Your task to perform on an android device: turn notification dots on Image 0: 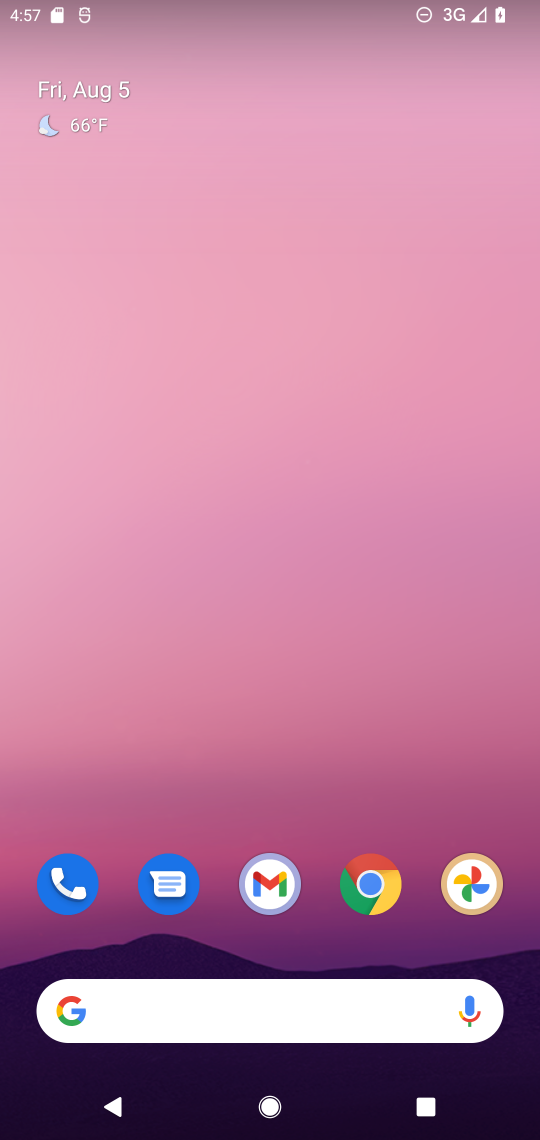
Step 0: drag from (416, 956) to (298, 77)
Your task to perform on an android device: turn notification dots on Image 1: 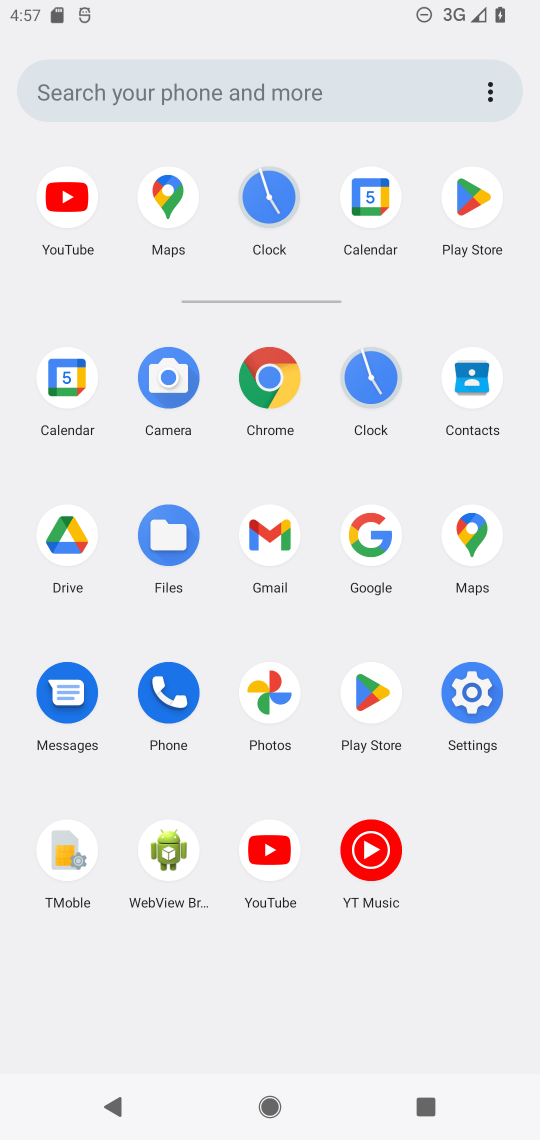
Step 1: click (473, 711)
Your task to perform on an android device: turn notification dots on Image 2: 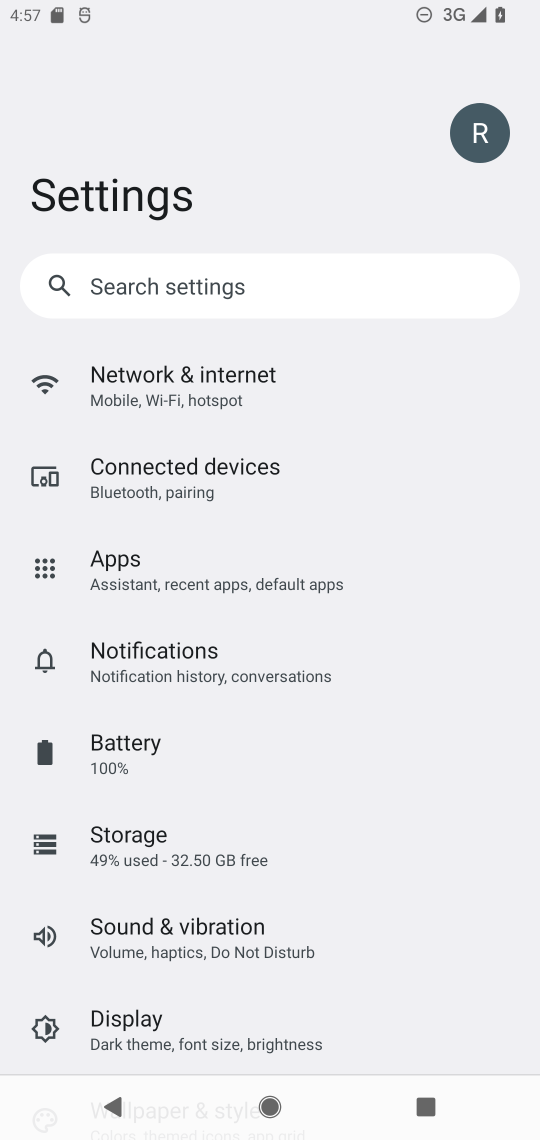
Step 2: drag from (173, 1001) to (174, 246)
Your task to perform on an android device: turn notification dots on Image 3: 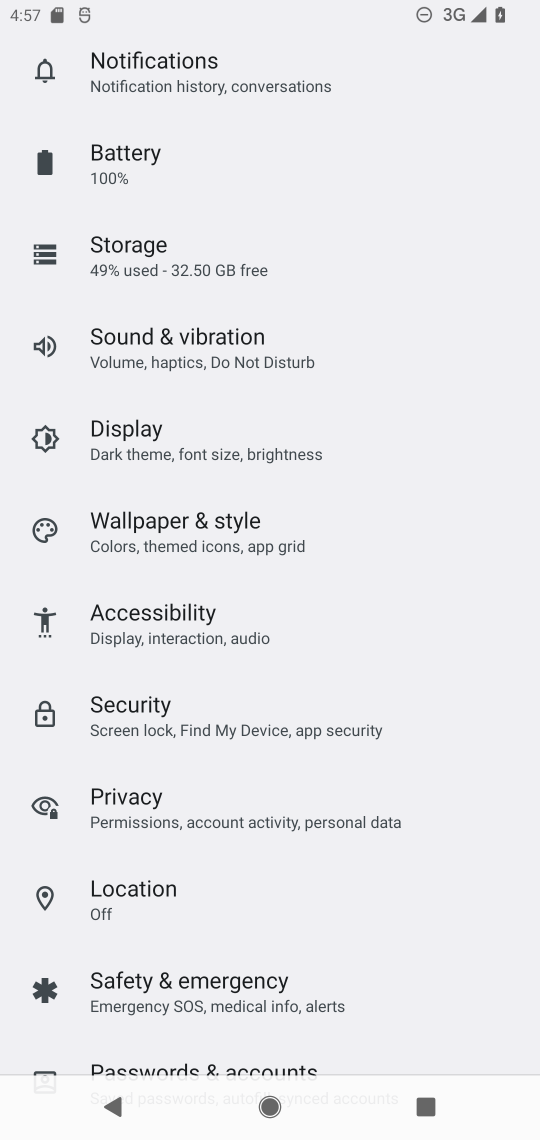
Step 3: drag from (222, 317) to (300, 1000)
Your task to perform on an android device: turn notification dots on Image 4: 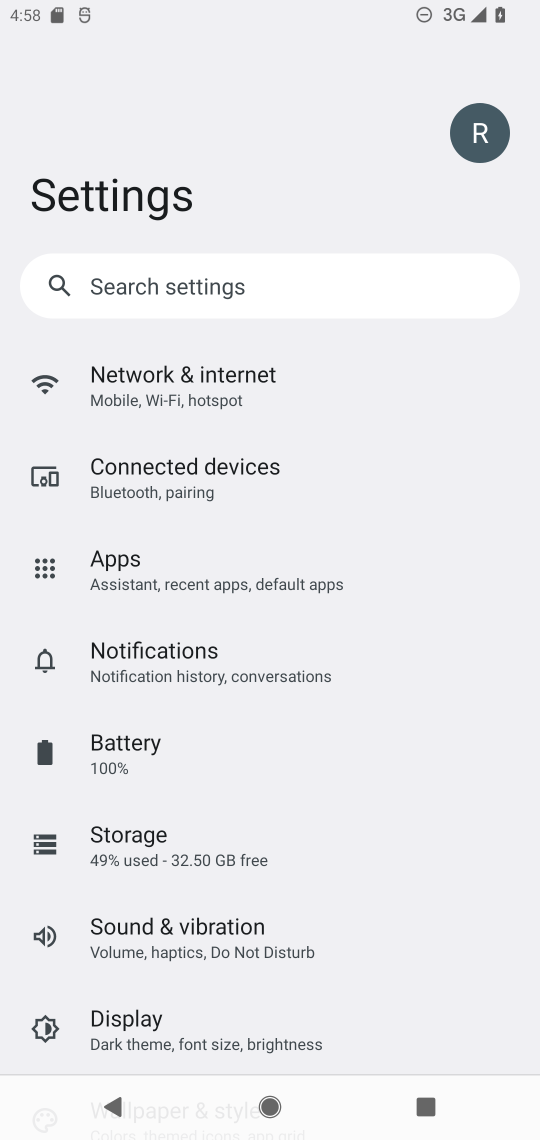
Step 4: click (174, 657)
Your task to perform on an android device: turn notification dots on Image 5: 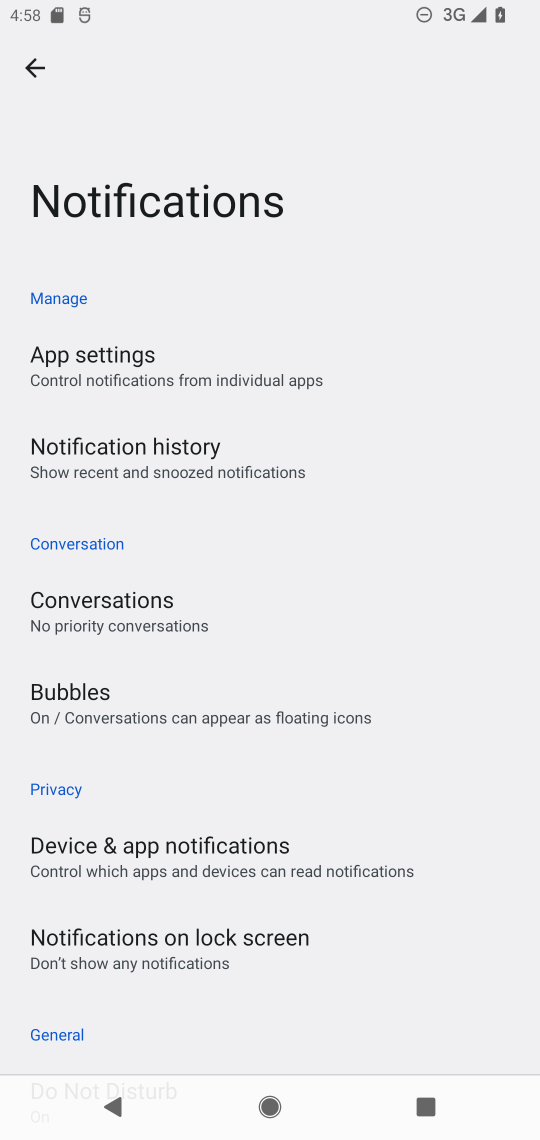
Step 5: drag from (206, 959) to (178, 46)
Your task to perform on an android device: turn notification dots on Image 6: 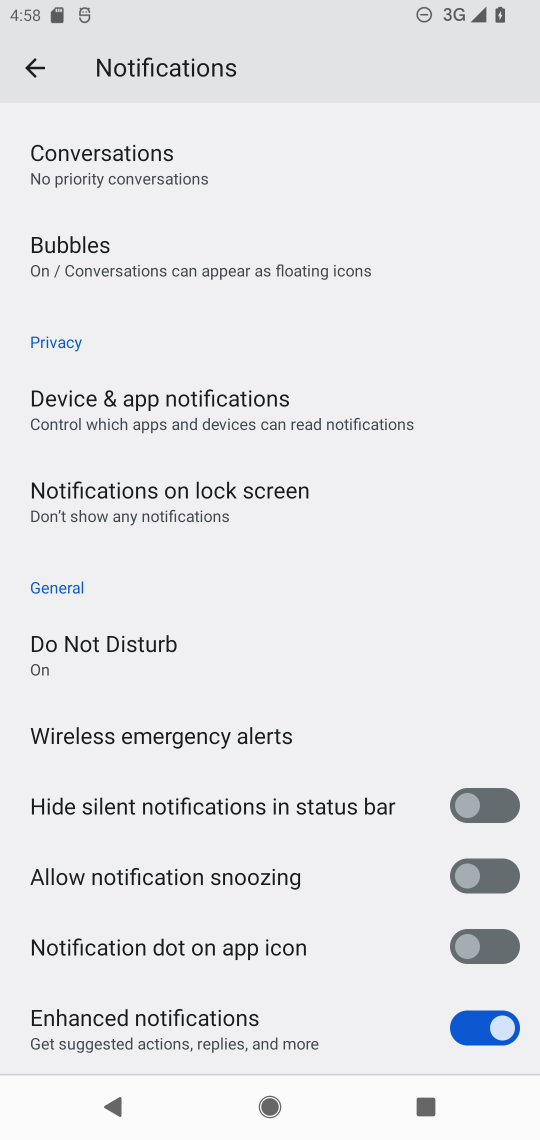
Step 6: click (418, 971)
Your task to perform on an android device: turn notification dots on Image 7: 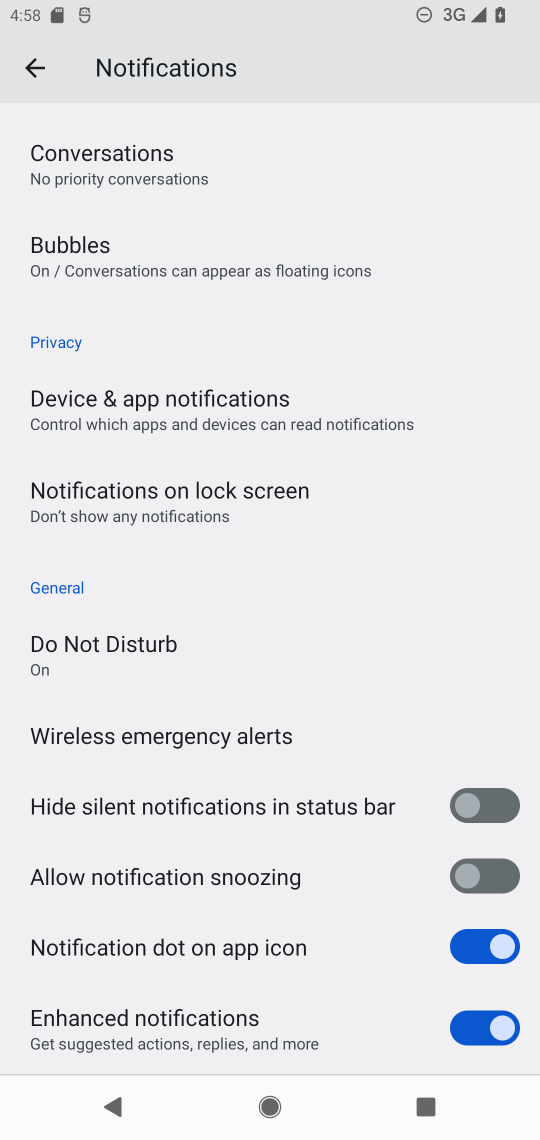
Step 7: task complete